Your task to perform on an android device: Open display settings Image 0: 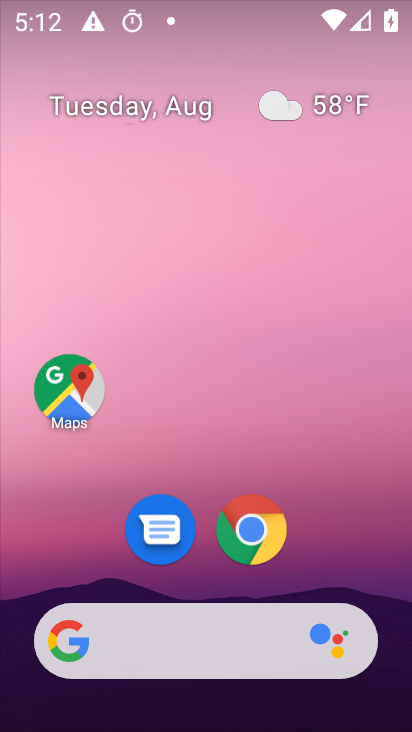
Step 0: drag from (192, 467) to (160, 149)
Your task to perform on an android device: Open display settings Image 1: 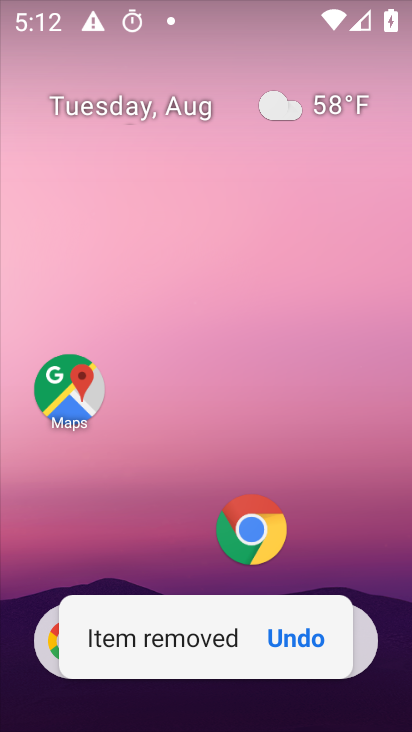
Step 1: drag from (190, 498) to (211, 132)
Your task to perform on an android device: Open display settings Image 2: 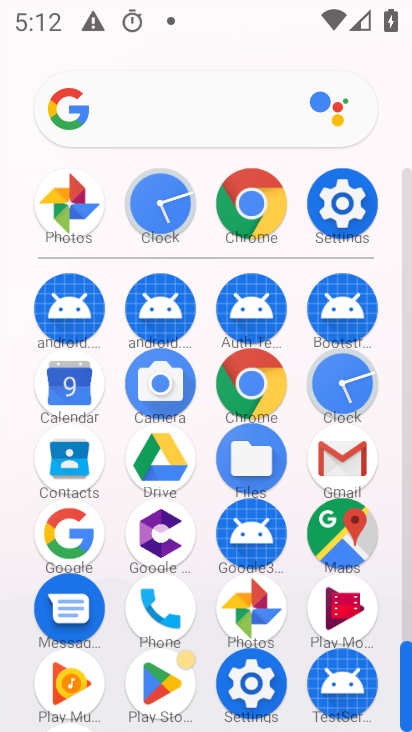
Step 2: click (326, 217)
Your task to perform on an android device: Open display settings Image 3: 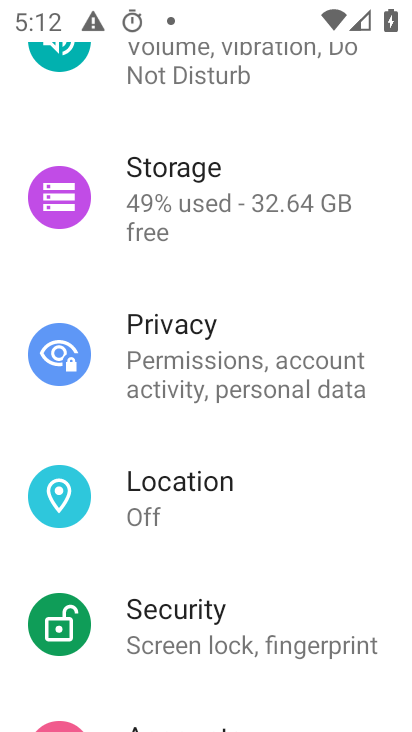
Step 3: drag from (231, 275) to (225, 559)
Your task to perform on an android device: Open display settings Image 4: 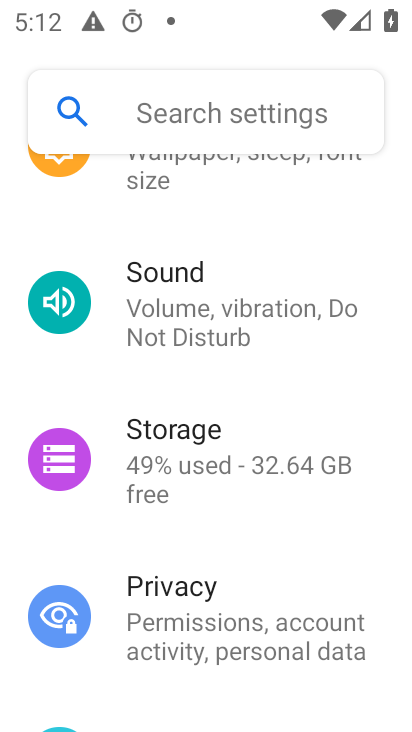
Step 4: drag from (246, 481) to (246, 595)
Your task to perform on an android device: Open display settings Image 5: 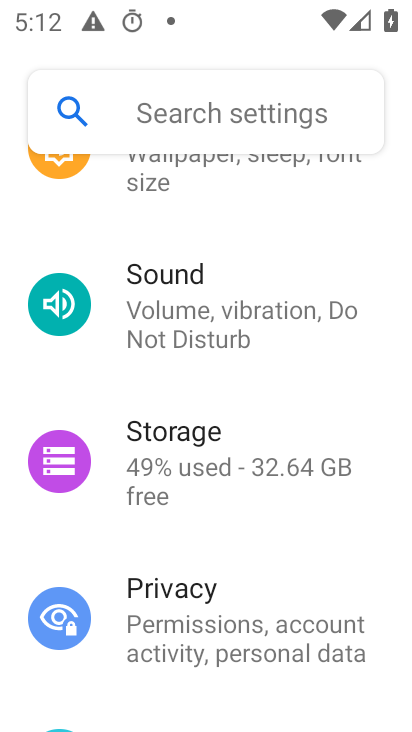
Step 5: drag from (210, 393) to (209, 700)
Your task to perform on an android device: Open display settings Image 6: 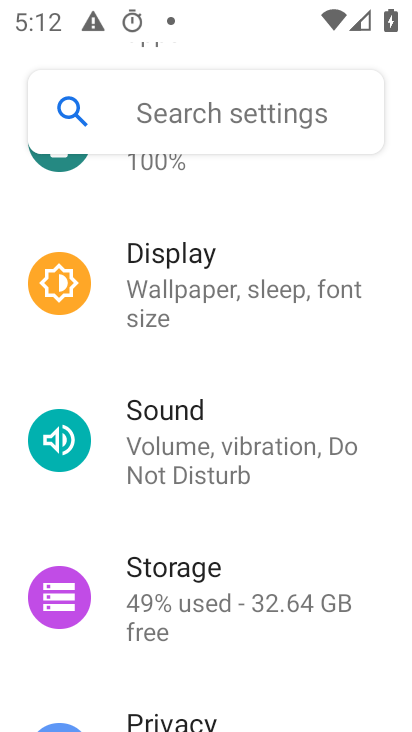
Step 6: click (187, 316)
Your task to perform on an android device: Open display settings Image 7: 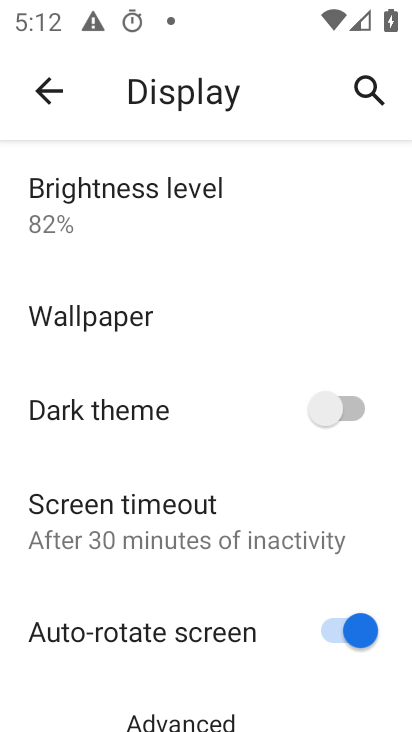
Step 7: task complete